Your task to perform on an android device: toggle pop-ups in chrome Image 0: 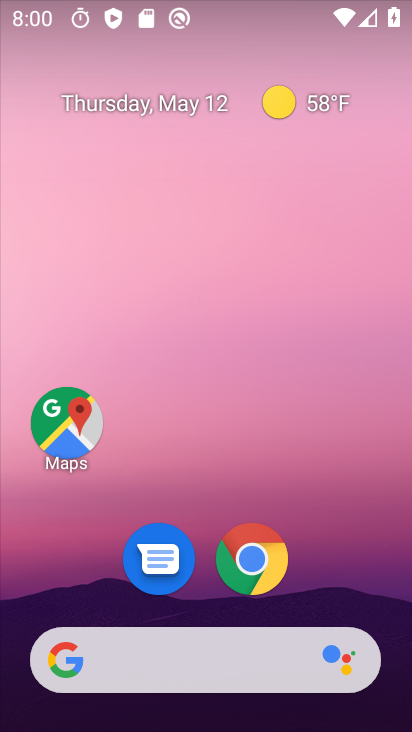
Step 0: click (253, 559)
Your task to perform on an android device: toggle pop-ups in chrome Image 1: 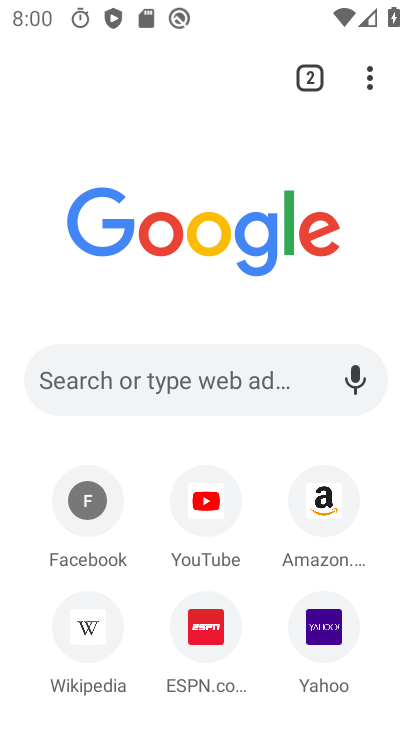
Step 1: click (372, 77)
Your task to perform on an android device: toggle pop-ups in chrome Image 2: 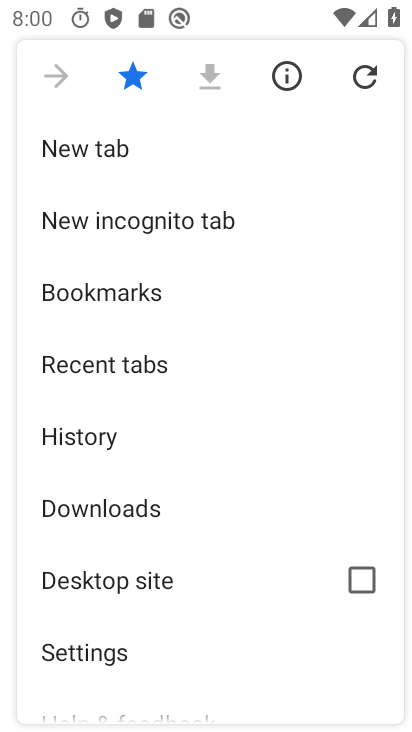
Step 2: drag from (139, 529) to (208, 416)
Your task to perform on an android device: toggle pop-ups in chrome Image 3: 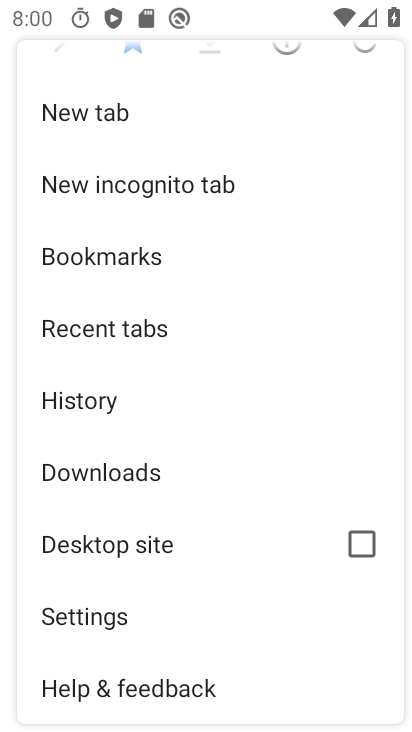
Step 3: click (94, 616)
Your task to perform on an android device: toggle pop-ups in chrome Image 4: 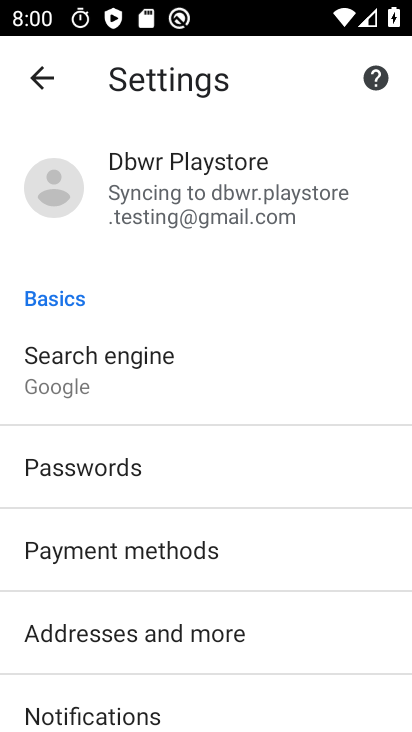
Step 4: drag from (131, 582) to (195, 496)
Your task to perform on an android device: toggle pop-ups in chrome Image 5: 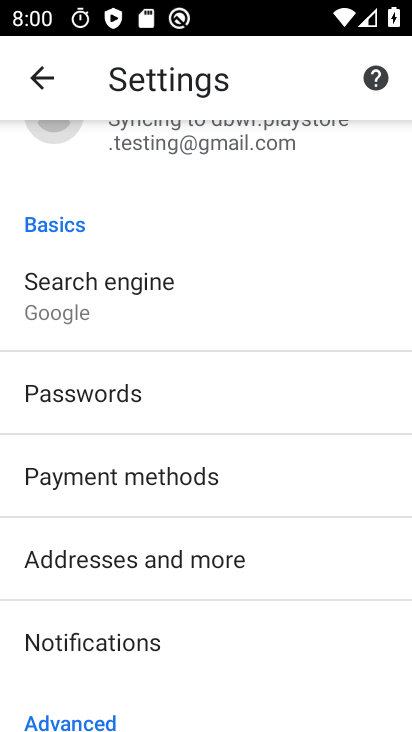
Step 5: drag from (157, 604) to (217, 505)
Your task to perform on an android device: toggle pop-ups in chrome Image 6: 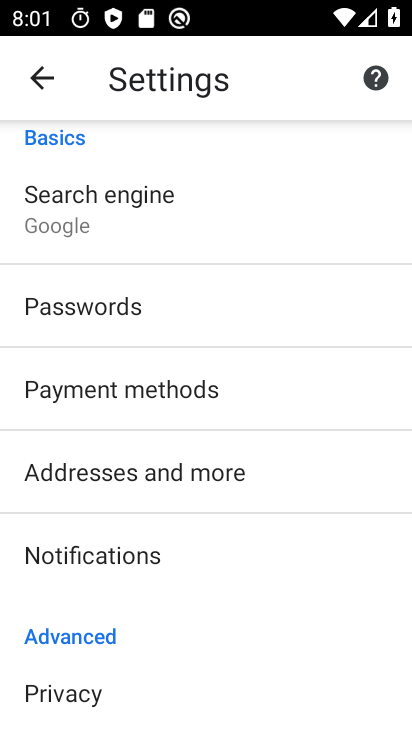
Step 6: drag from (140, 604) to (228, 465)
Your task to perform on an android device: toggle pop-ups in chrome Image 7: 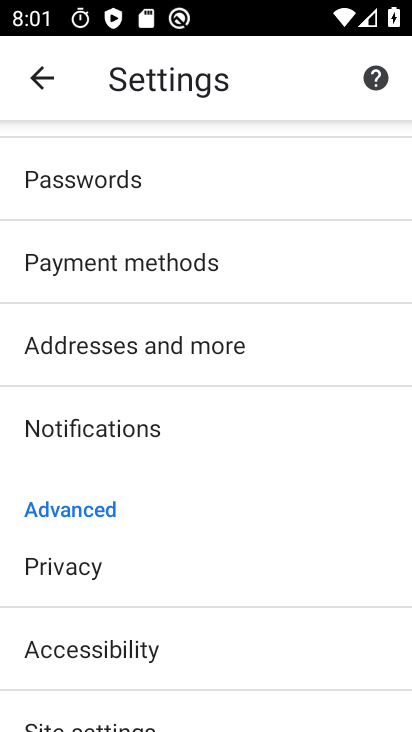
Step 7: drag from (116, 622) to (192, 524)
Your task to perform on an android device: toggle pop-ups in chrome Image 8: 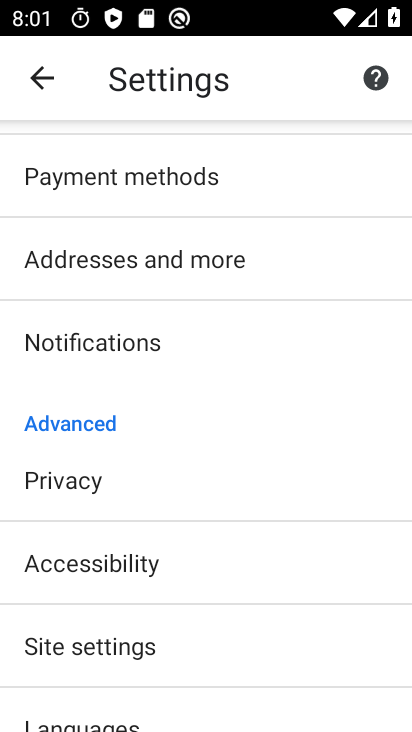
Step 8: click (112, 648)
Your task to perform on an android device: toggle pop-ups in chrome Image 9: 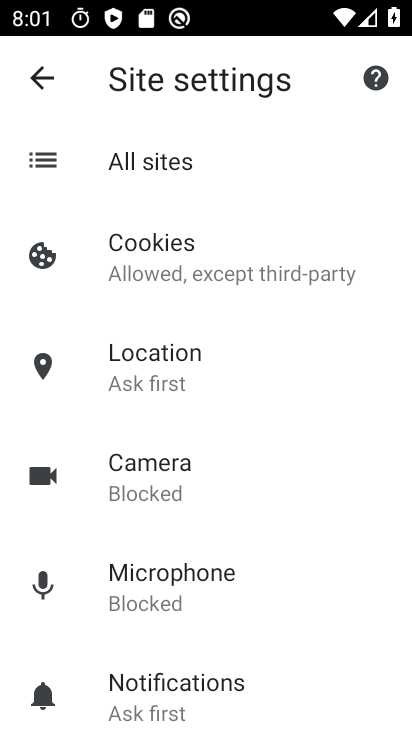
Step 9: drag from (172, 536) to (212, 447)
Your task to perform on an android device: toggle pop-ups in chrome Image 10: 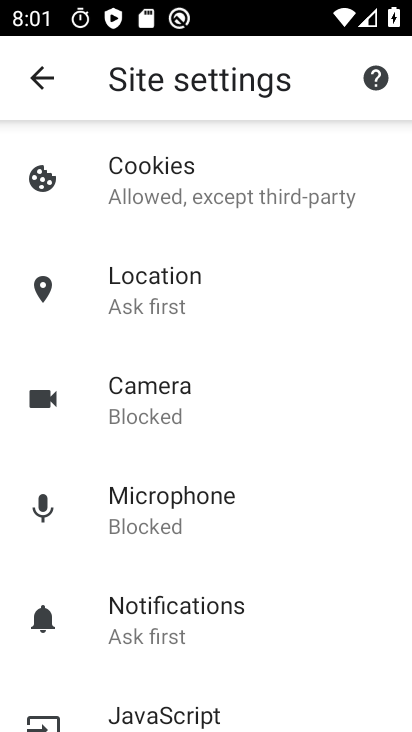
Step 10: drag from (167, 649) to (224, 529)
Your task to perform on an android device: toggle pop-ups in chrome Image 11: 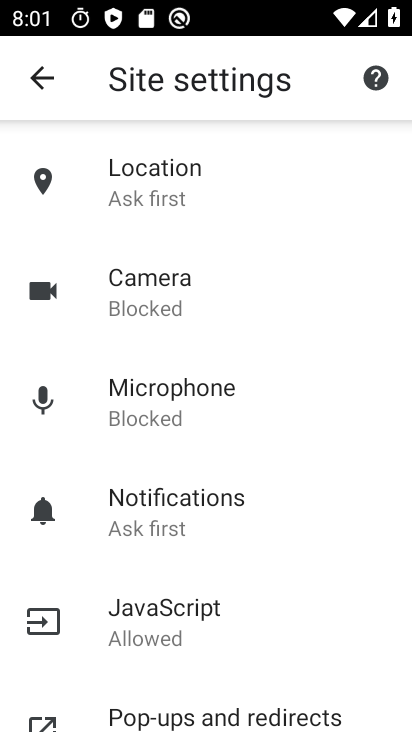
Step 11: drag from (167, 658) to (279, 505)
Your task to perform on an android device: toggle pop-ups in chrome Image 12: 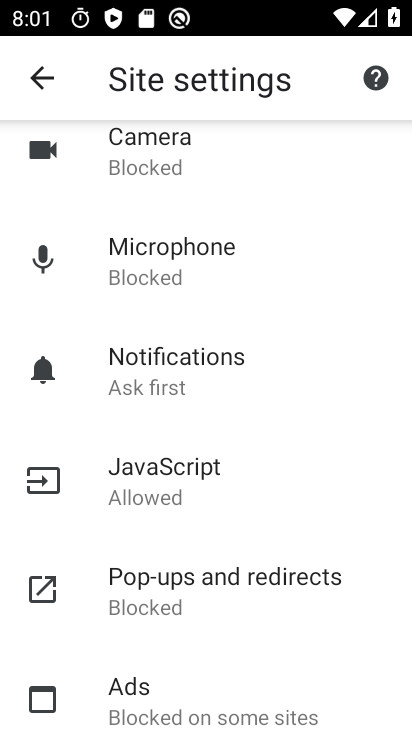
Step 12: click (205, 574)
Your task to perform on an android device: toggle pop-ups in chrome Image 13: 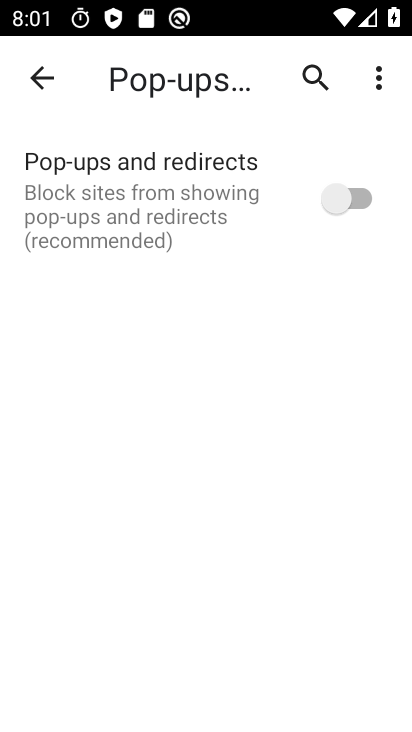
Step 13: click (341, 200)
Your task to perform on an android device: toggle pop-ups in chrome Image 14: 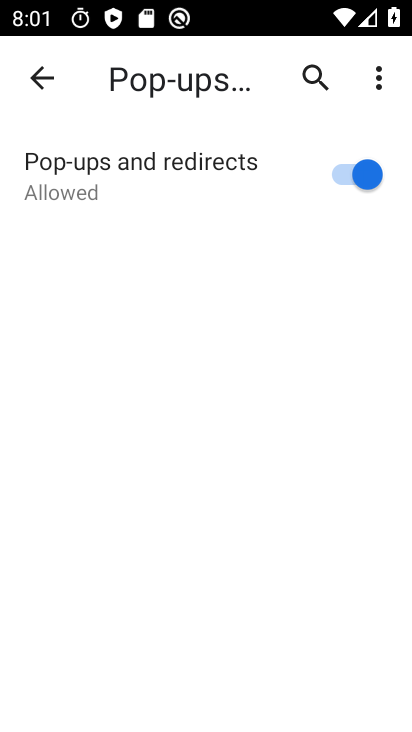
Step 14: task complete